Your task to perform on an android device: Clear all items from cart on ebay. Search for panasonic triple a on ebay, select the first entry, and add it to the cart. Image 0: 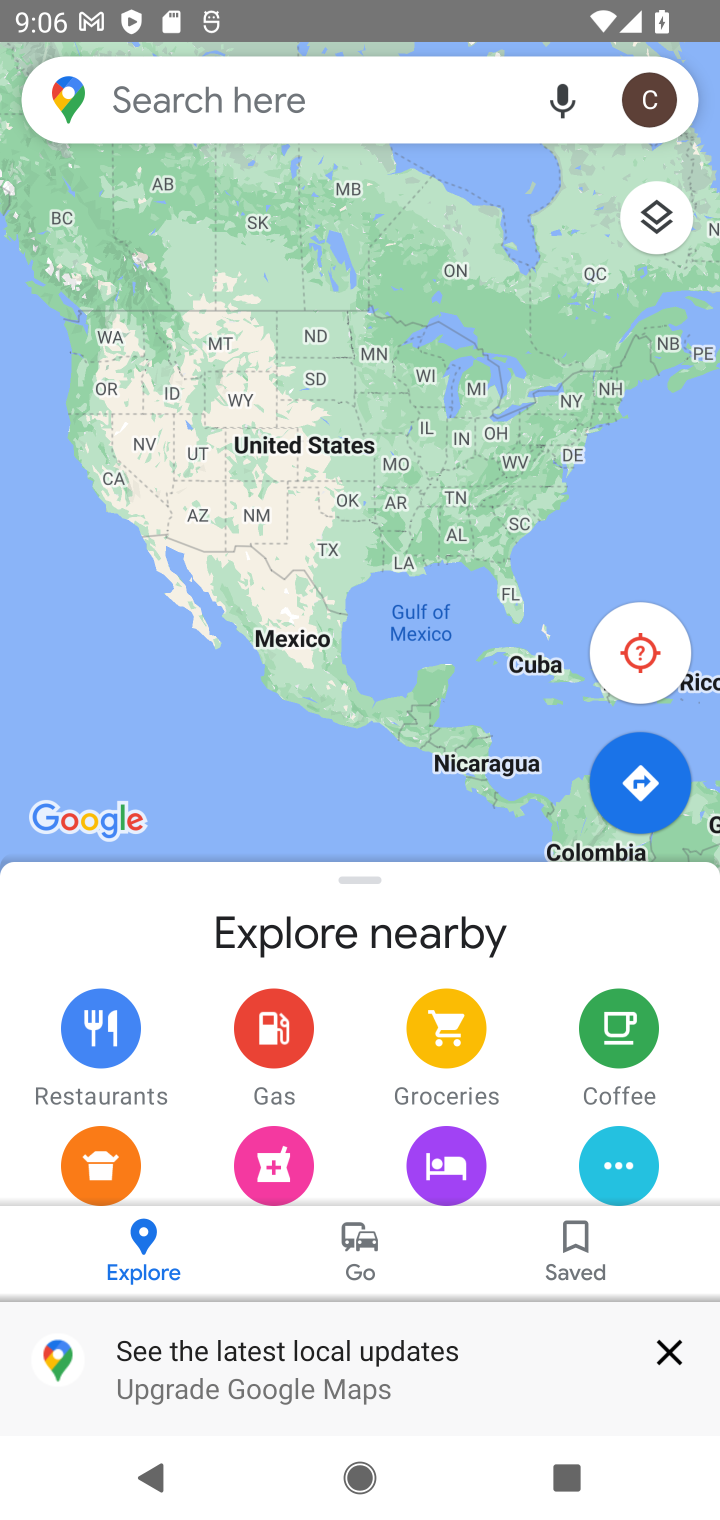
Step 0: click (387, 108)
Your task to perform on an android device: Clear all items from cart on ebay. Search for panasonic triple a on ebay, select the first entry, and add it to the cart. Image 1: 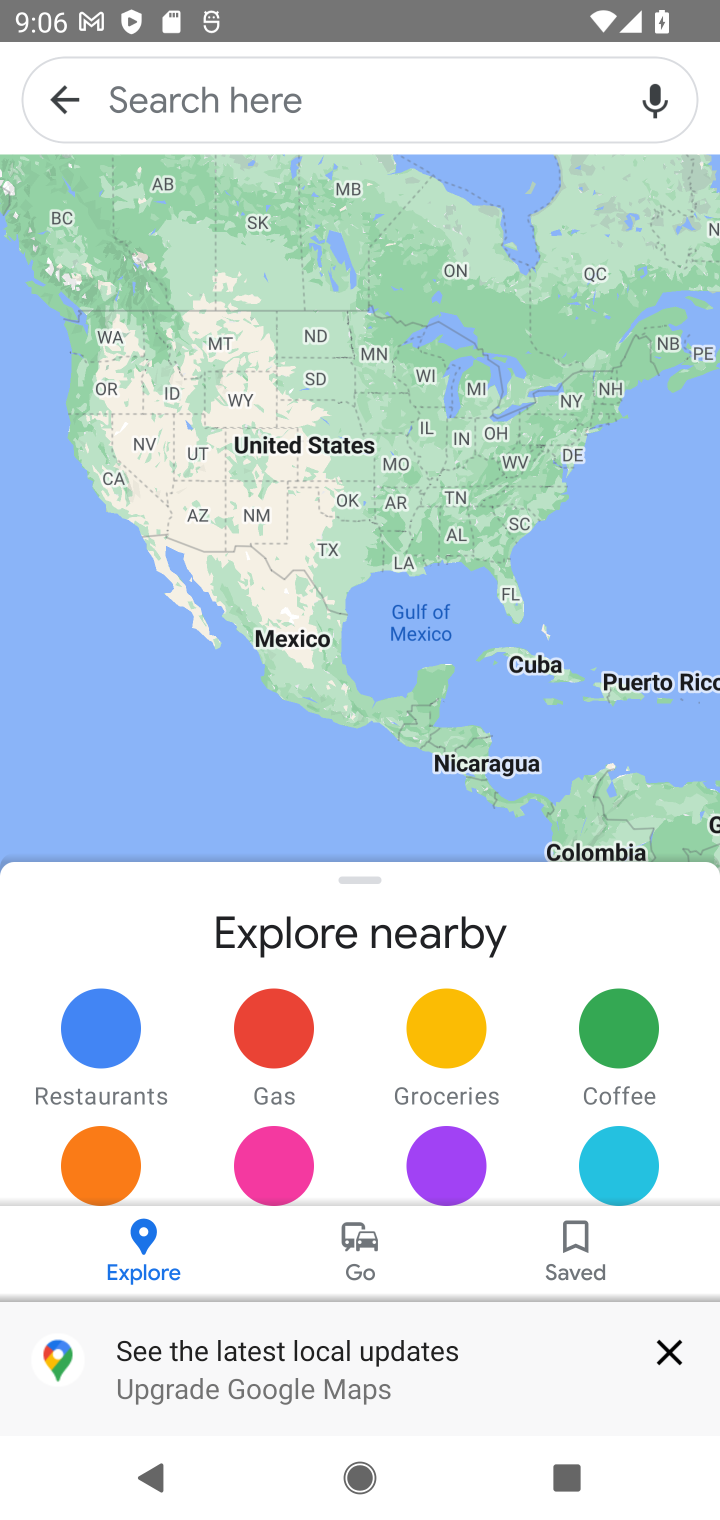
Step 1: press home button
Your task to perform on an android device: Clear all items from cart on ebay. Search for panasonic triple a on ebay, select the first entry, and add it to the cart. Image 2: 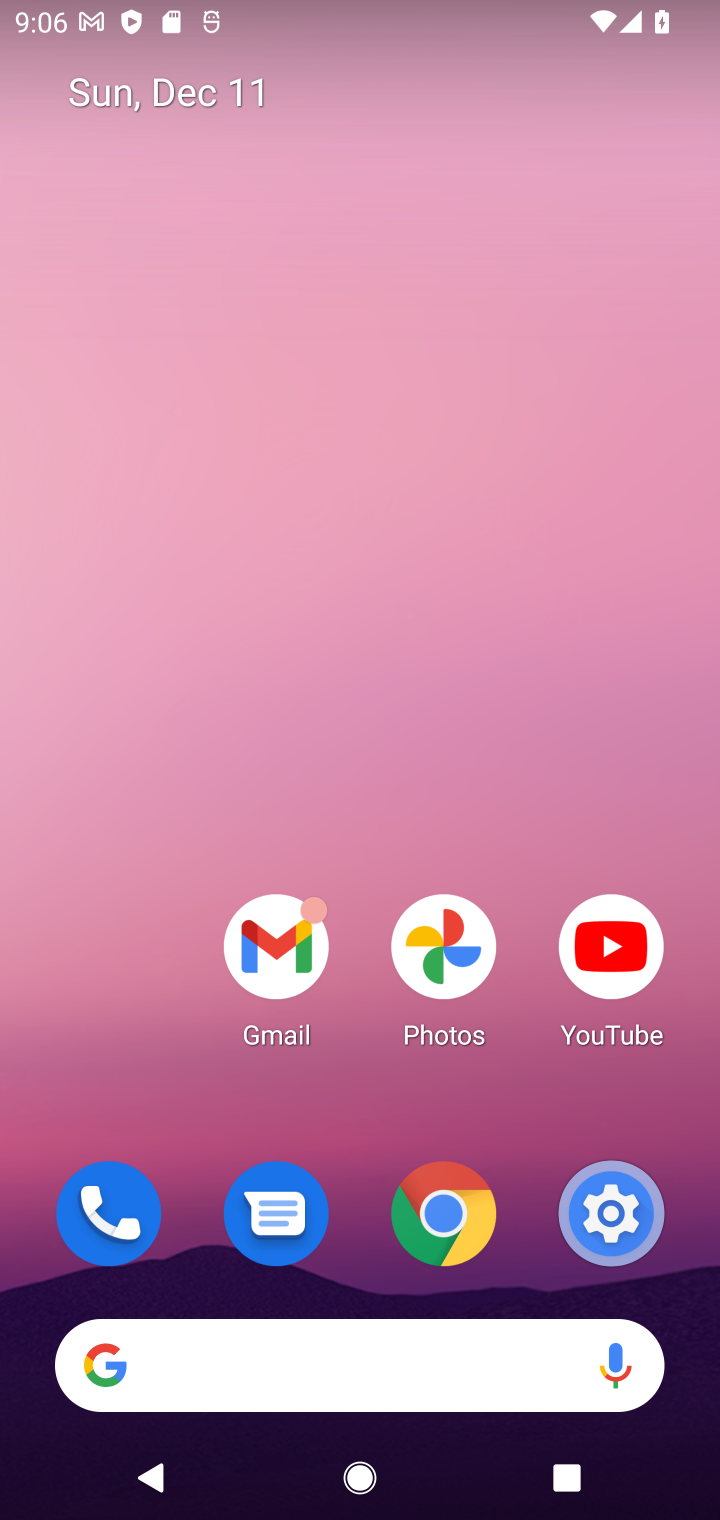
Step 2: click (341, 1340)
Your task to perform on an android device: Clear all items from cart on ebay. Search for panasonic triple a on ebay, select the first entry, and add it to the cart. Image 3: 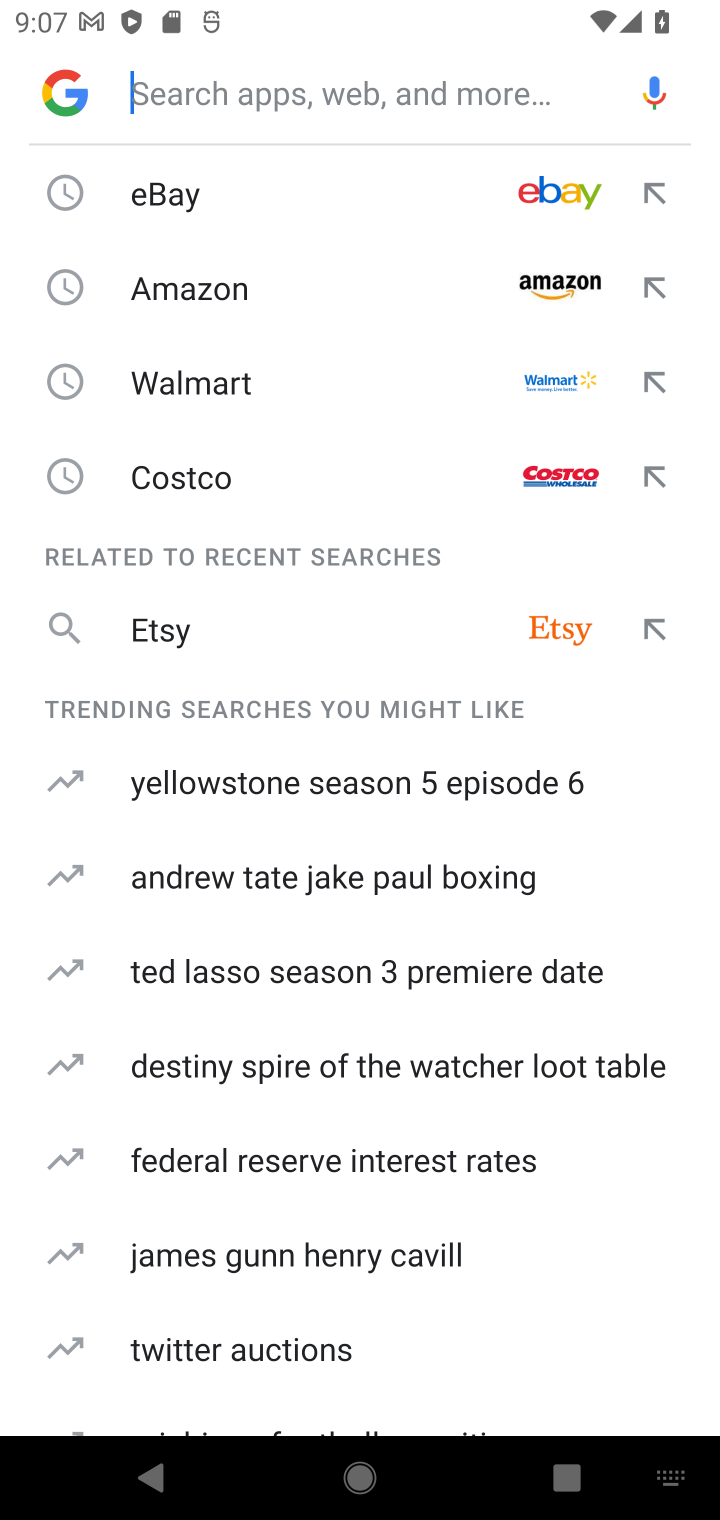
Step 3: type "ebay"
Your task to perform on an android device: Clear all items from cart on ebay. Search for panasonic triple a on ebay, select the first entry, and add it to the cart. Image 4: 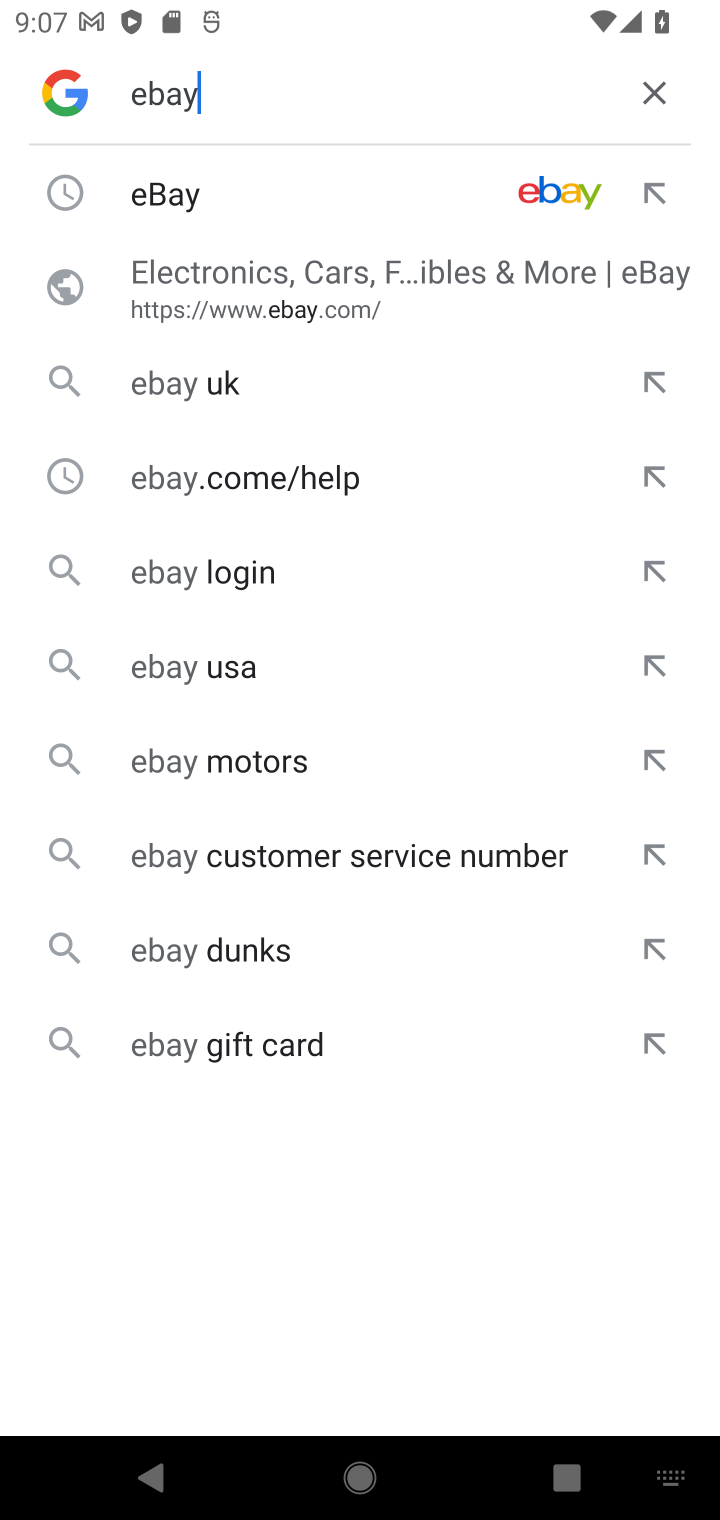
Step 4: click (288, 229)
Your task to perform on an android device: Clear all items from cart on ebay. Search for panasonic triple a on ebay, select the first entry, and add it to the cart. Image 5: 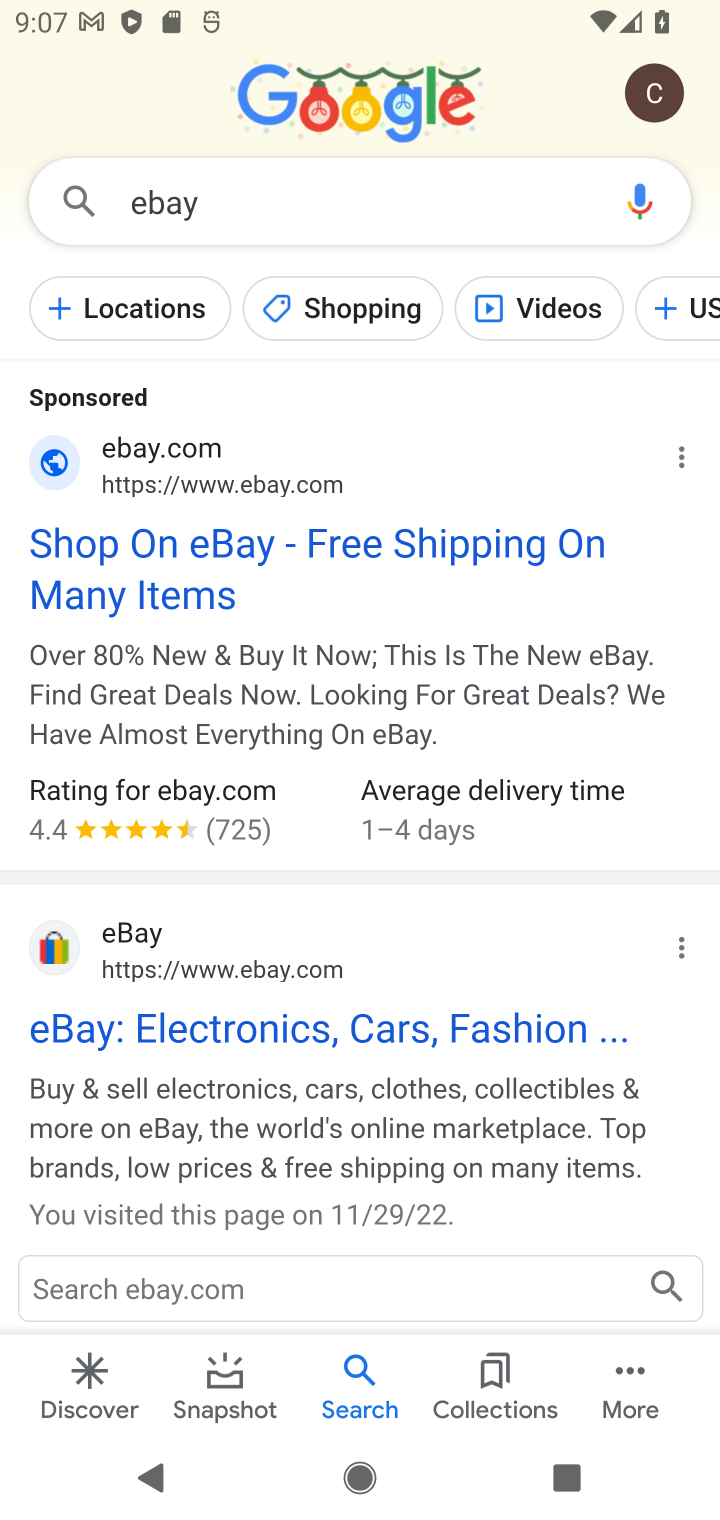
Step 5: click (156, 529)
Your task to perform on an android device: Clear all items from cart on ebay. Search for panasonic triple a on ebay, select the first entry, and add it to the cart. Image 6: 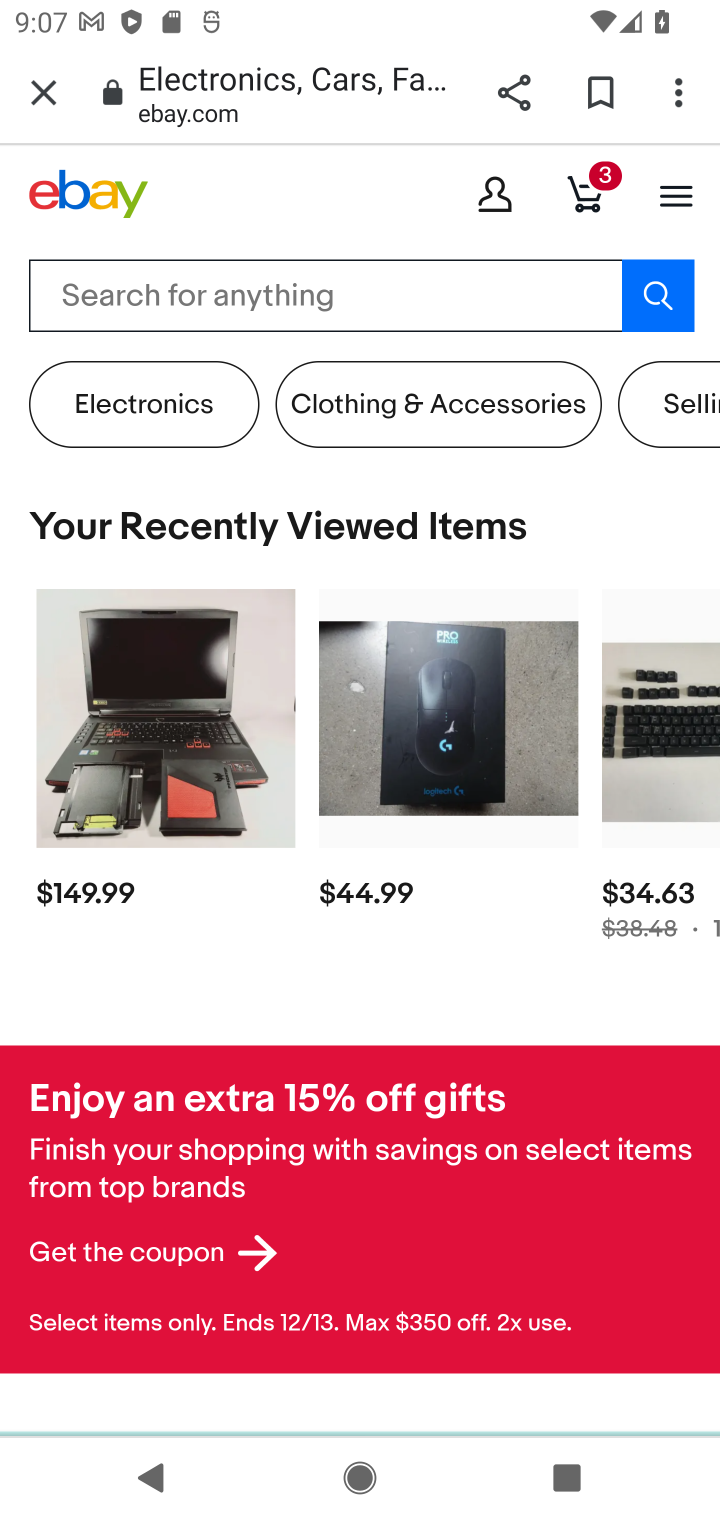
Step 6: click (385, 310)
Your task to perform on an android device: Clear all items from cart on ebay. Search for panasonic triple a on ebay, select the first entry, and add it to the cart. Image 7: 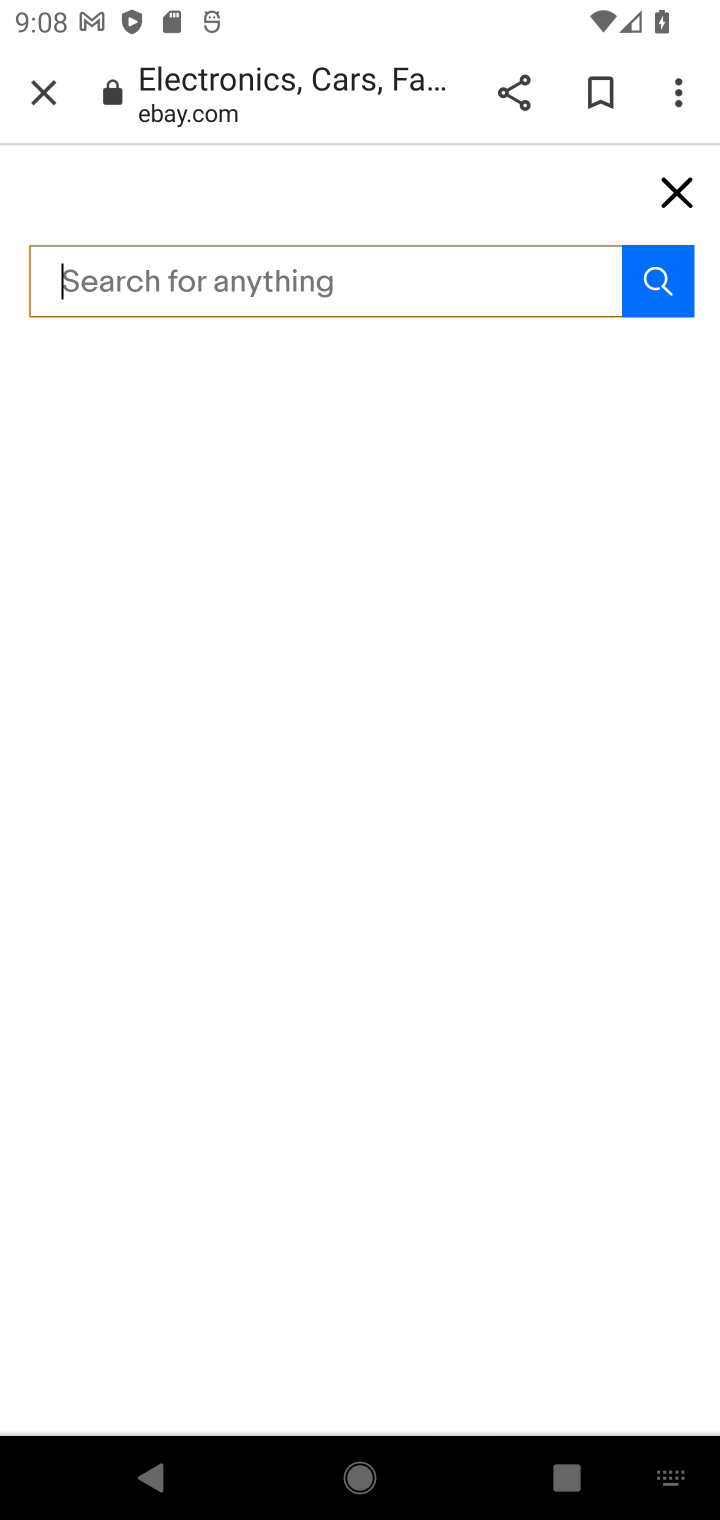
Step 7: type "ebay.com"
Your task to perform on an android device: Clear all items from cart on ebay. Search for panasonic triple a on ebay, select the first entry, and add it to the cart. Image 8: 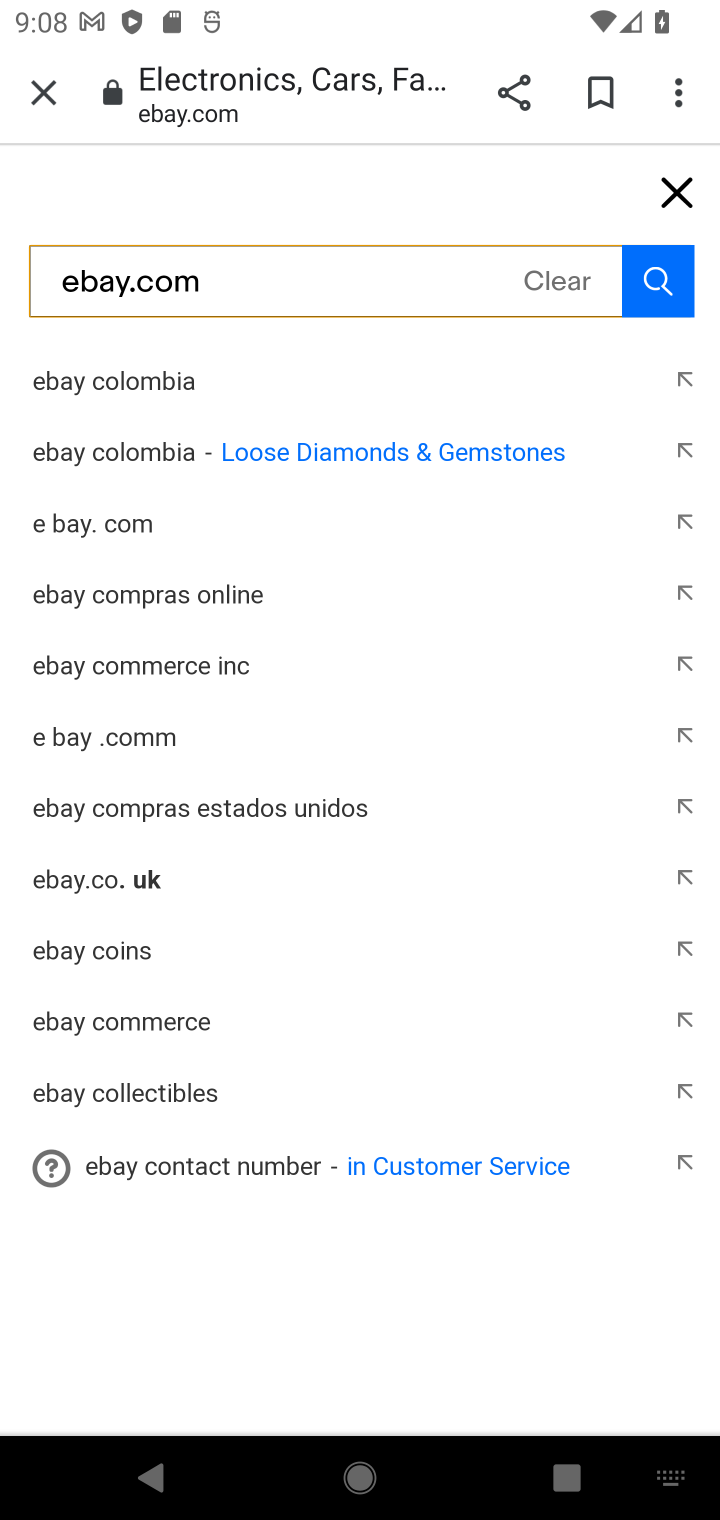
Step 8: click (570, 296)
Your task to perform on an android device: Clear all items from cart on ebay. Search for panasonic triple a on ebay, select the first entry, and add it to the cart. Image 9: 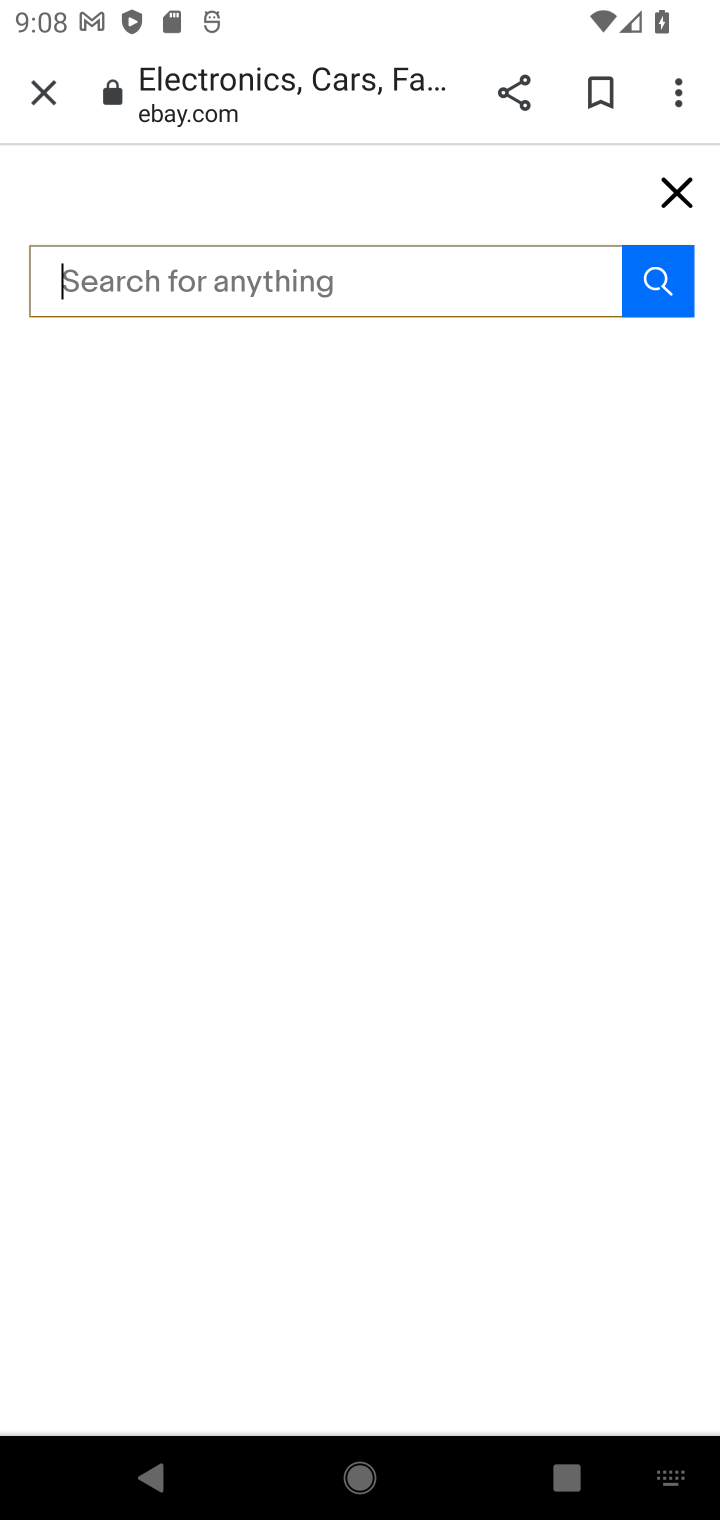
Step 9: type "pansonic triple a"
Your task to perform on an android device: Clear all items from cart on ebay. Search for panasonic triple a on ebay, select the first entry, and add it to the cart. Image 10: 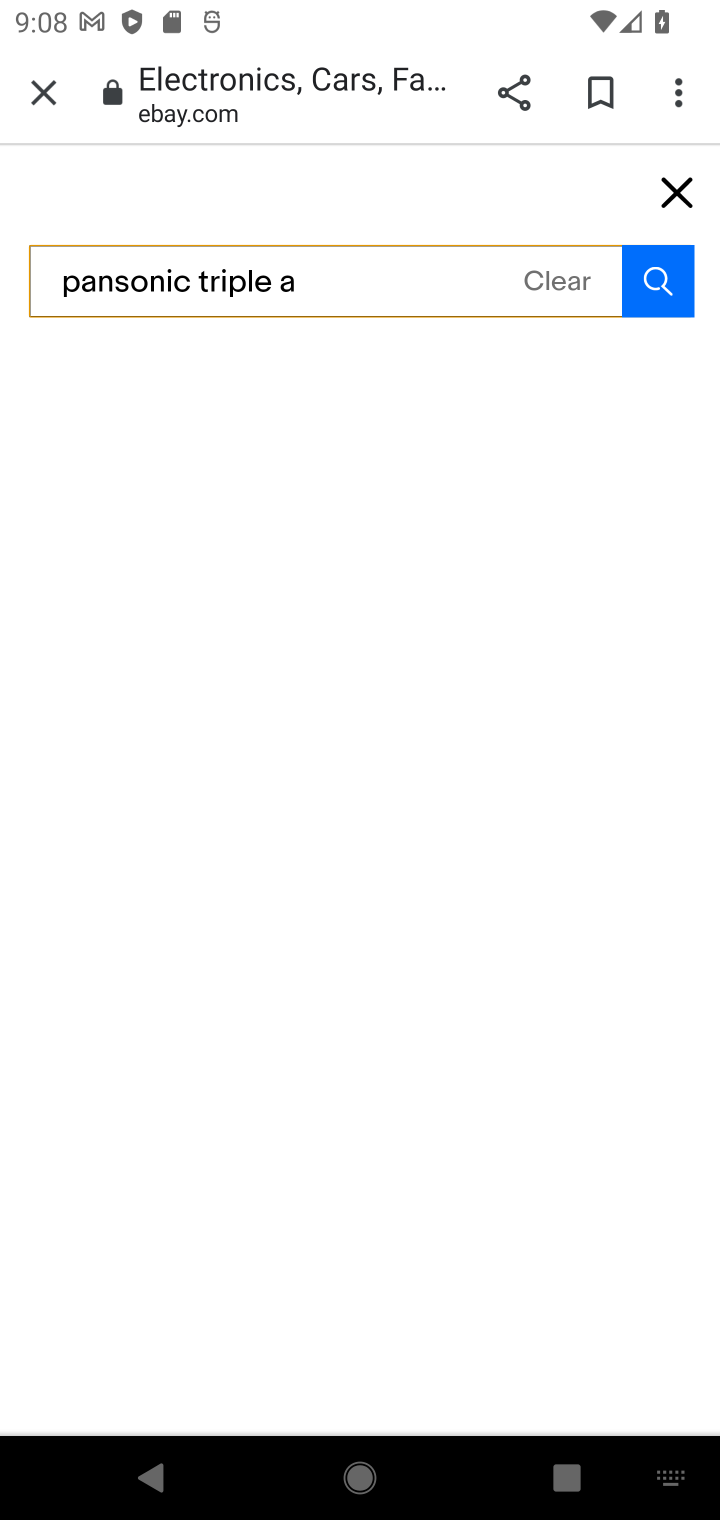
Step 10: click (653, 285)
Your task to perform on an android device: Clear all items from cart on ebay. Search for panasonic triple a on ebay, select the first entry, and add it to the cart. Image 11: 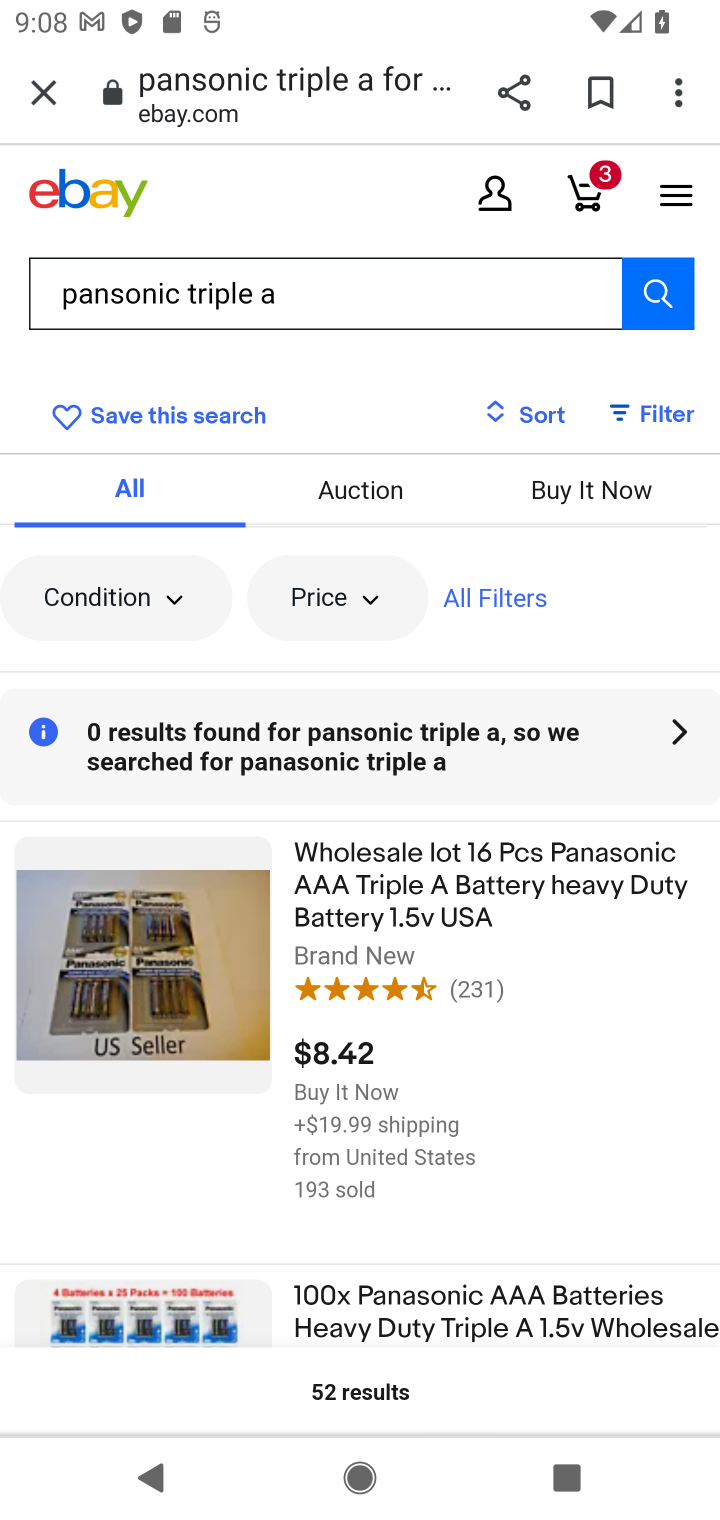
Step 11: click (356, 891)
Your task to perform on an android device: Clear all items from cart on ebay. Search for panasonic triple a on ebay, select the first entry, and add it to the cart. Image 12: 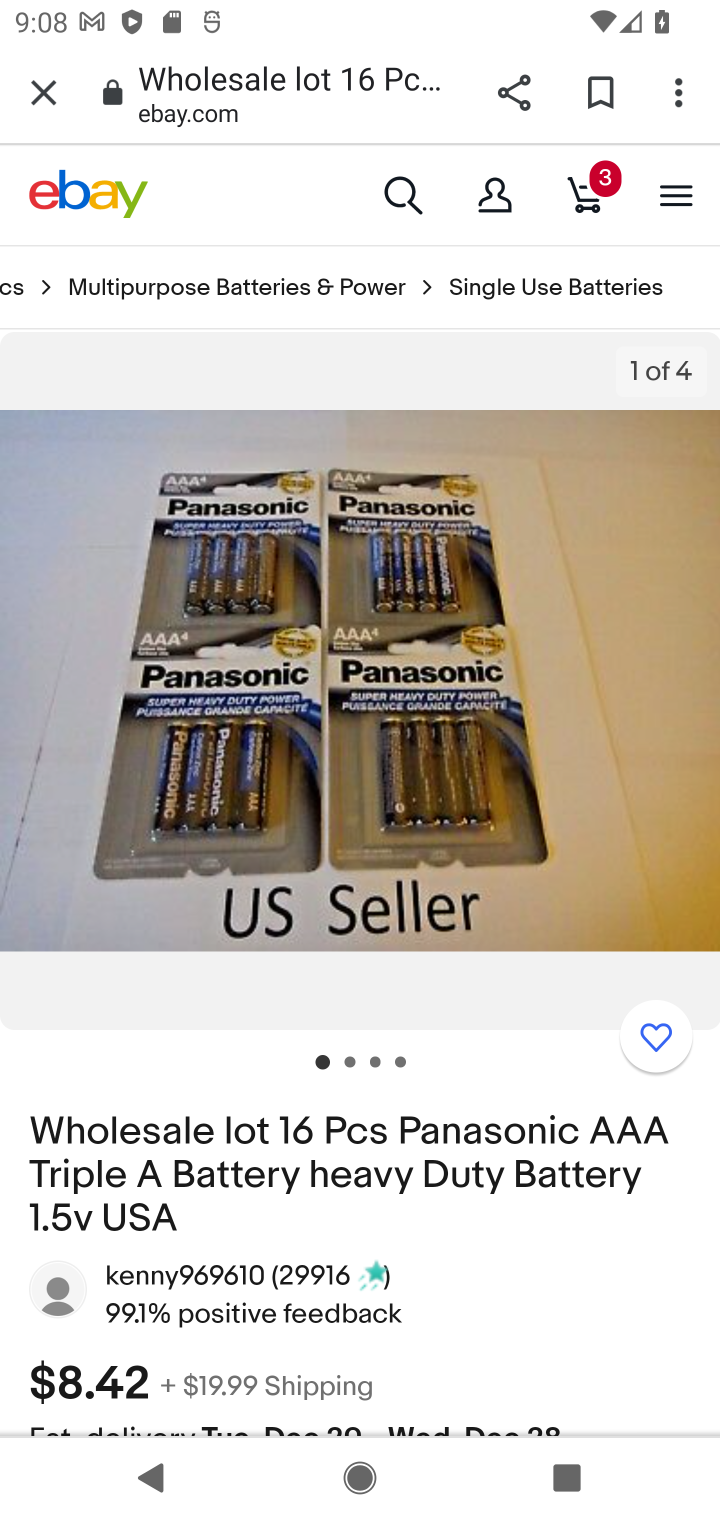
Step 12: task complete